Your task to perform on an android device: Open Google Maps Image 0: 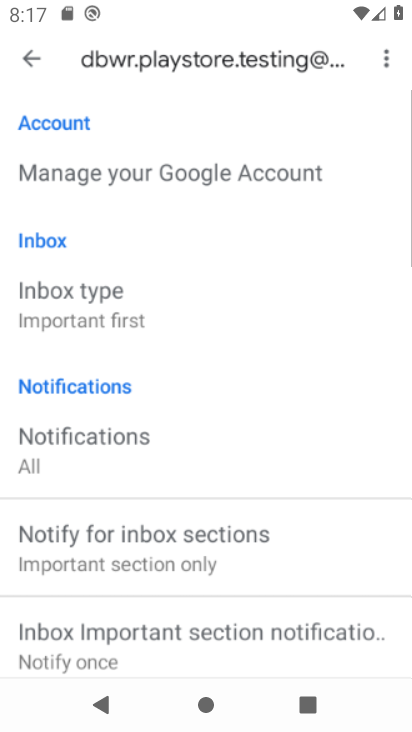
Step 0: drag from (259, 717) to (217, 183)
Your task to perform on an android device: Open Google Maps Image 1: 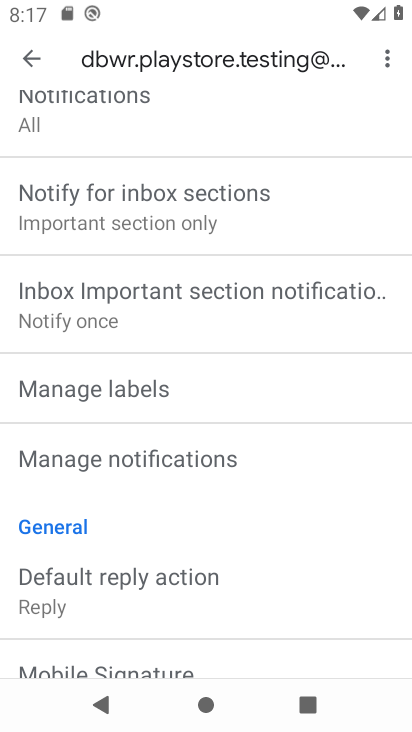
Step 1: click (29, 51)
Your task to perform on an android device: Open Google Maps Image 2: 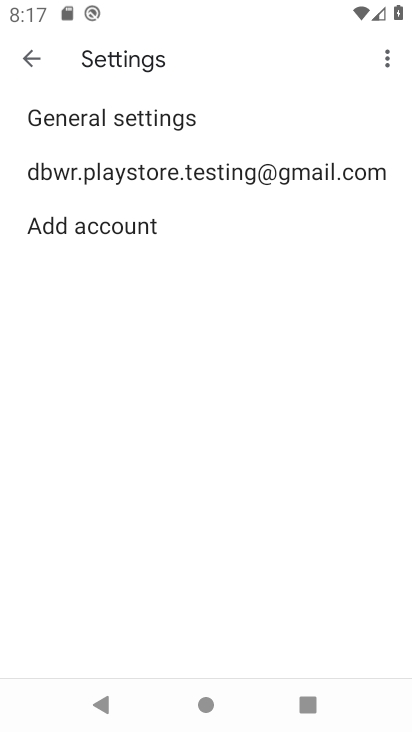
Step 2: click (27, 64)
Your task to perform on an android device: Open Google Maps Image 3: 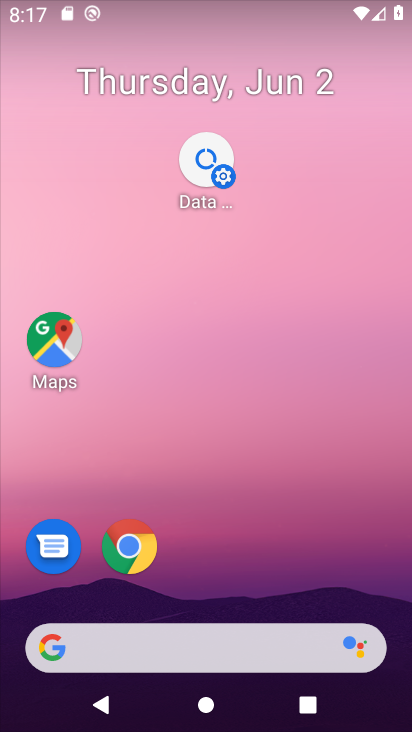
Step 3: drag from (283, 637) to (218, 50)
Your task to perform on an android device: Open Google Maps Image 4: 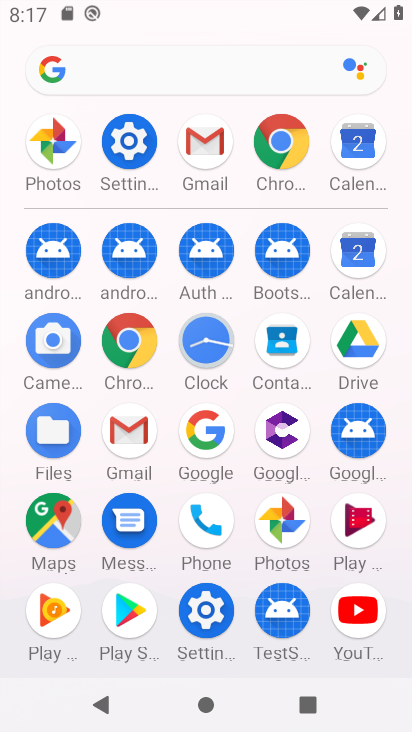
Step 4: click (35, 524)
Your task to perform on an android device: Open Google Maps Image 5: 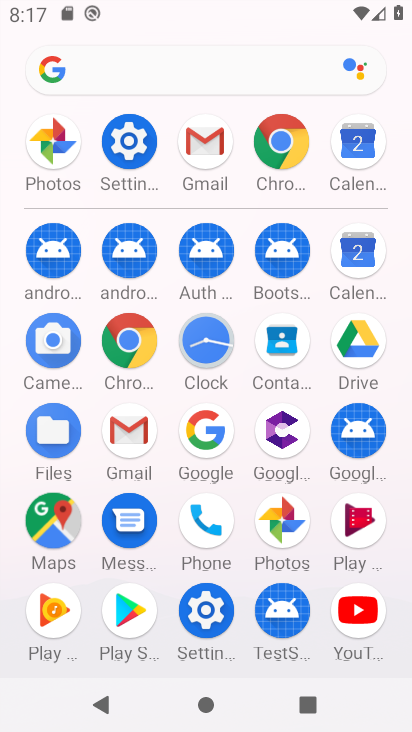
Step 5: click (41, 520)
Your task to perform on an android device: Open Google Maps Image 6: 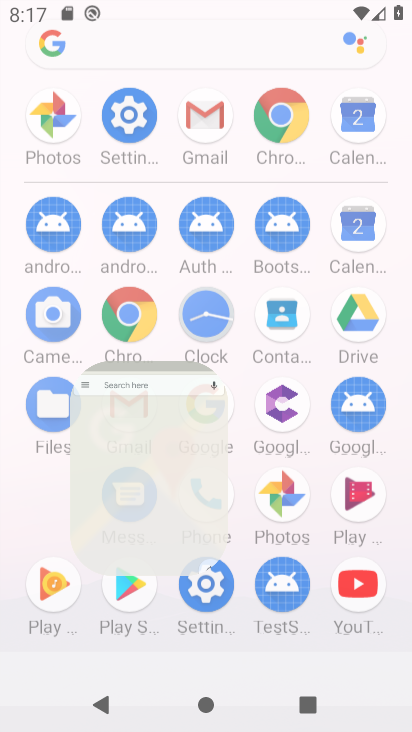
Step 6: click (43, 517)
Your task to perform on an android device: Open Google Maps Image 7: 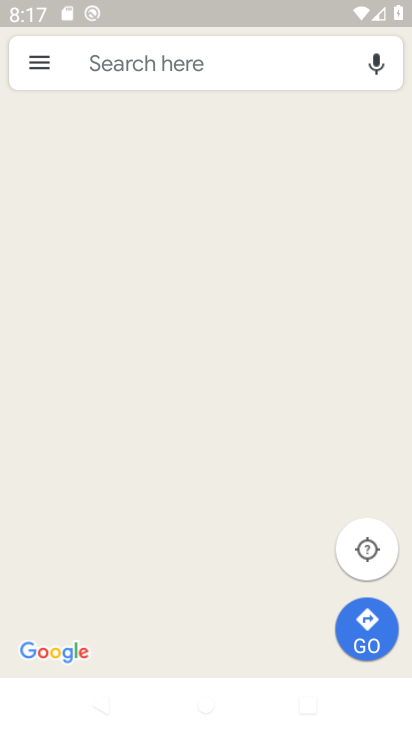
Step 7: task complete